Your task to perform on an android device: turn off priority inbox in the gmail app Image 0: 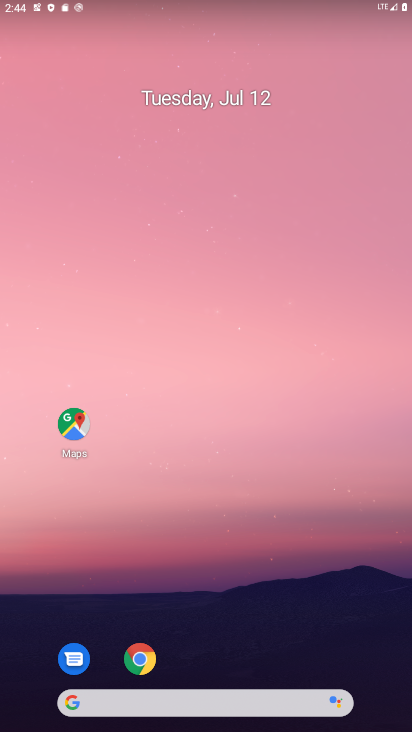
Step 0: drag from (226, 728) to (214, 198)
Your task to perform on an android device: turn off priority inbox in the gmail app Image 1: 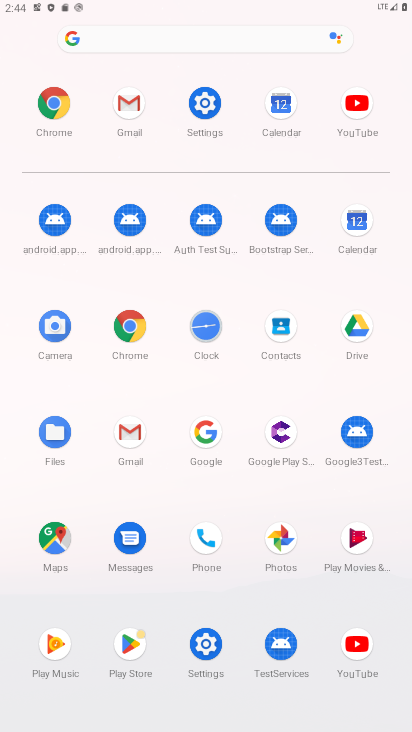
Step 1: click (129, 430)
Your task to perform on an android device: turn off priority inbox in the gmail app Image 2: 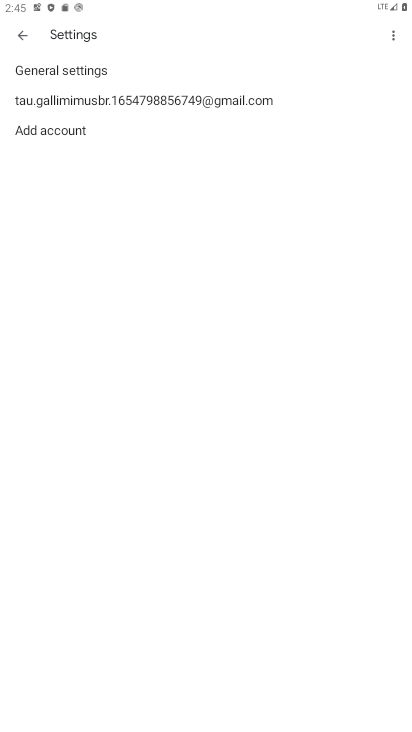
Step 2: click (85, 96)
Your task to perform on an android device: turn off priority inbox in the gmail app Image 3: 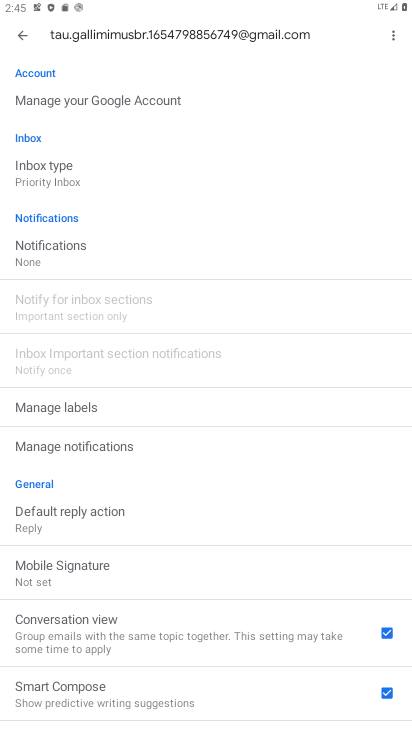
Step 3: click (70, 174)
Your task to perform on an android device: turn off priority inbox in the gmail app Image 4: 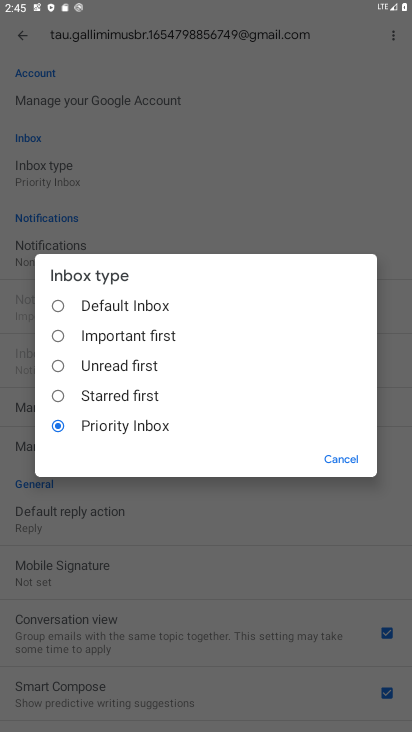
Step 4: click (59, 309)
Your task to perform on an android device: turn off priority inbox in the gmail app Image 5: 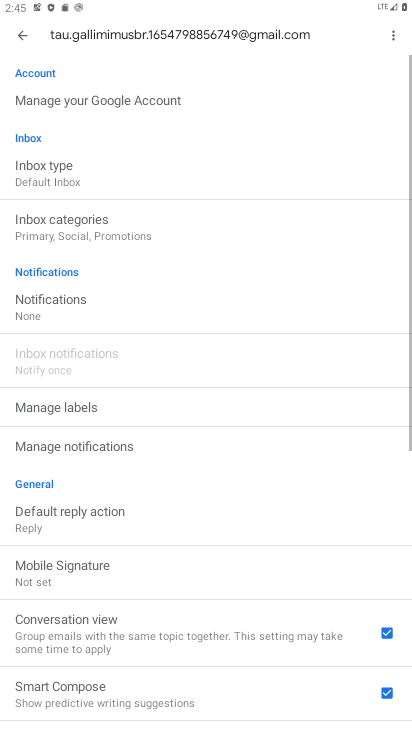
Step 5: task complete